Your task to perform on an android device: Go to ESPN.com Image 0: 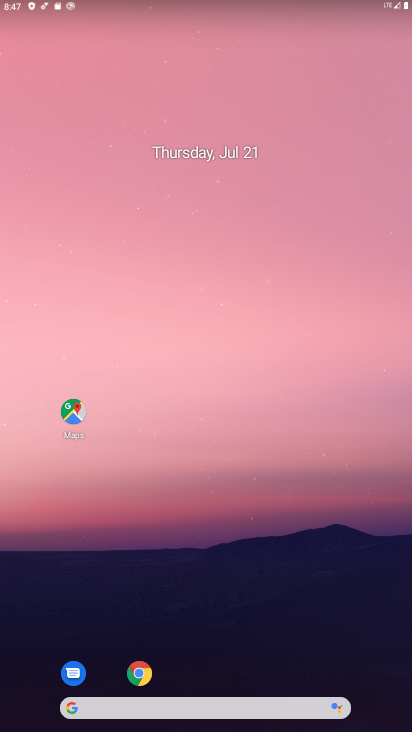
Step 0: click (151, 670)
Your task to perform on an android device: Go to ESPN.com Image 1: 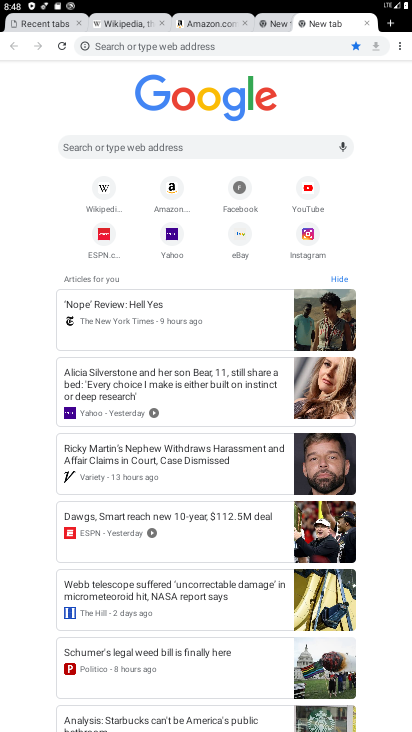
Step 1: click (109, 255)
Your task to perform on an android device: Go to ESPN.com Image 2: 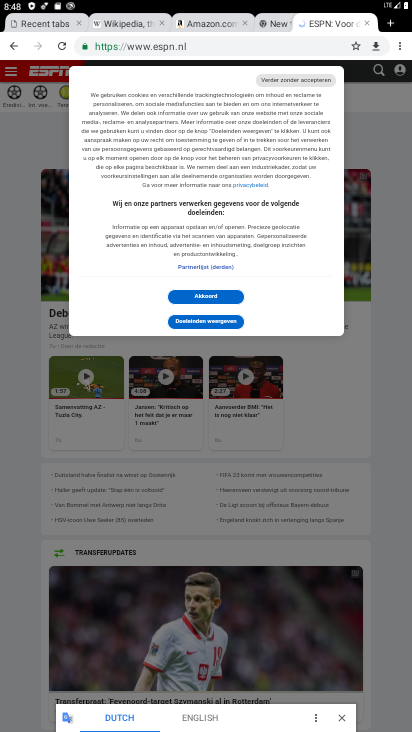
Step 2: task complete